Your task to perform on an android device: Go to Amazon Image 0: 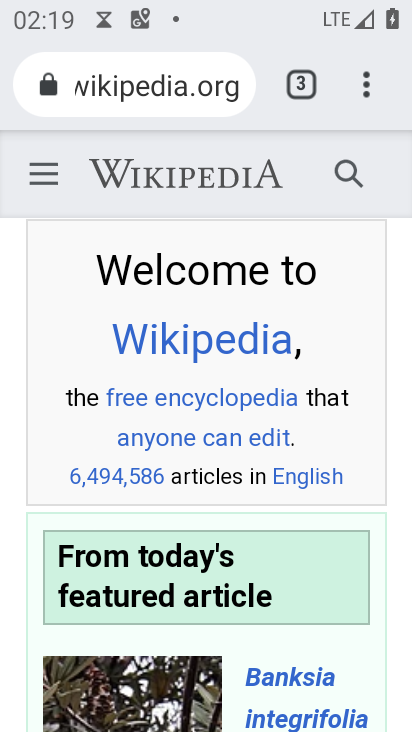
Step 0: click (323, 81)
Your task to perform on an android device: Go to Amazon Image 1: 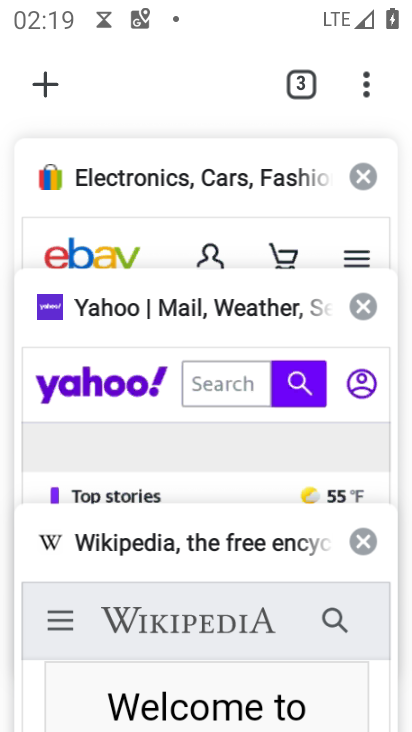
Step 1: click (61, 82)
Your task to perform on an android device: Go to Amazon Image 2: 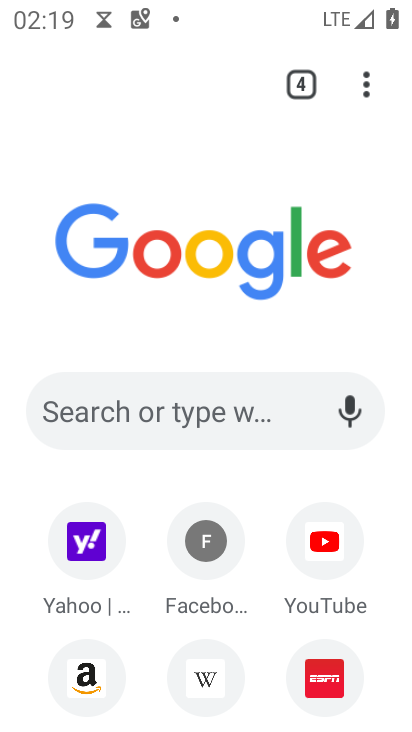
Step 2: click (87, 665)
Your task to perform on an android device: Go to Amazon Image 3: 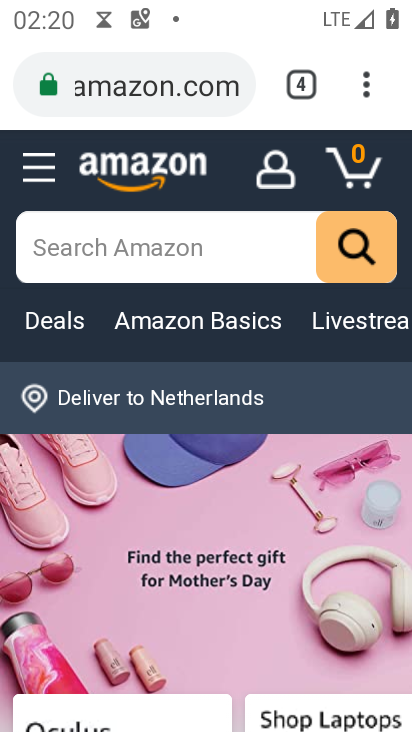
Step 3: task complete